Your task to perform on an android device: What is the news today? Image 0: 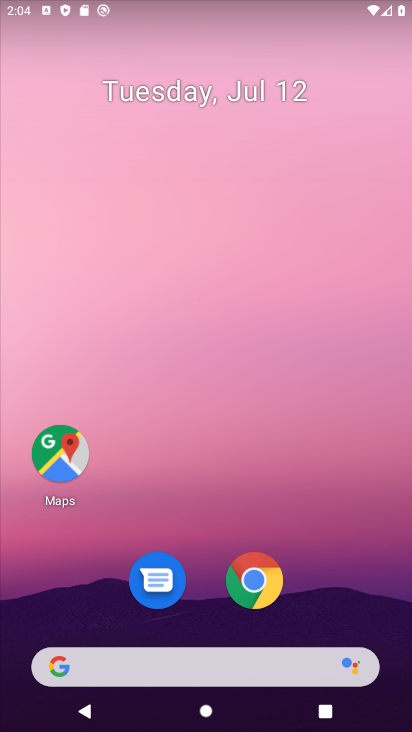
Step 0: click (224, 650)
Your task to perform on an android device: What is the news today? Image 1: 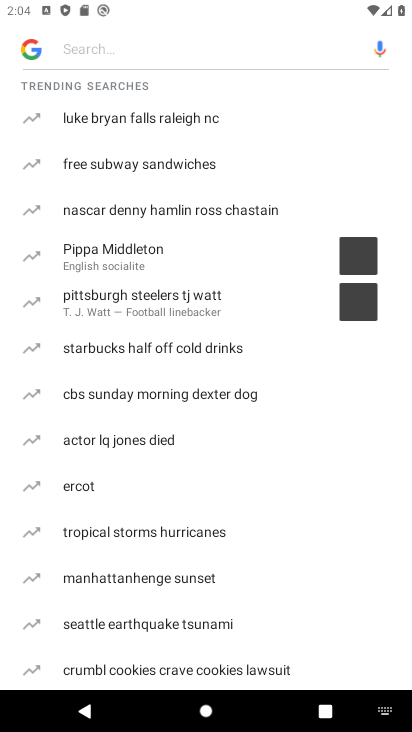
Step 1: click (28, 38)
Your task to perform on an android device: What is the news today? Image 2: 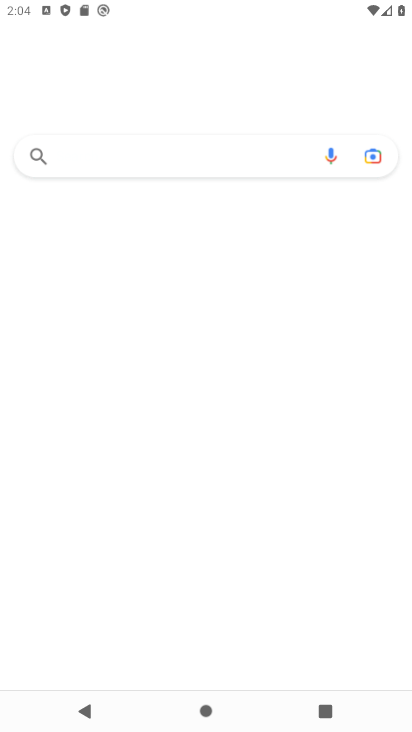
Step 2: task complete